Your task to perform on an android device: set an alarm Image 0: 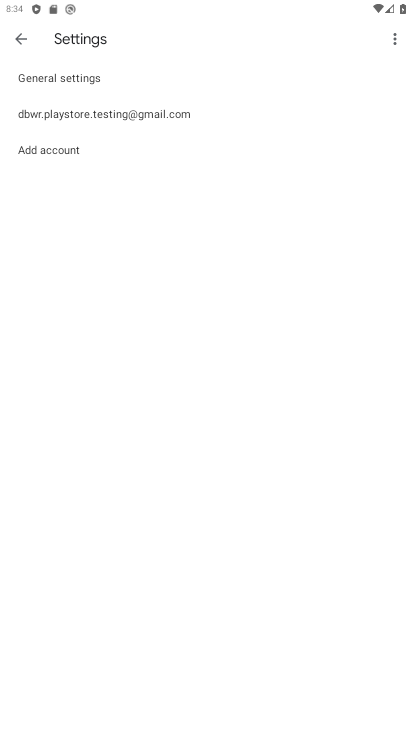
Step 0: press home button
Your task to perform on an android device: set an alarm Image 1: 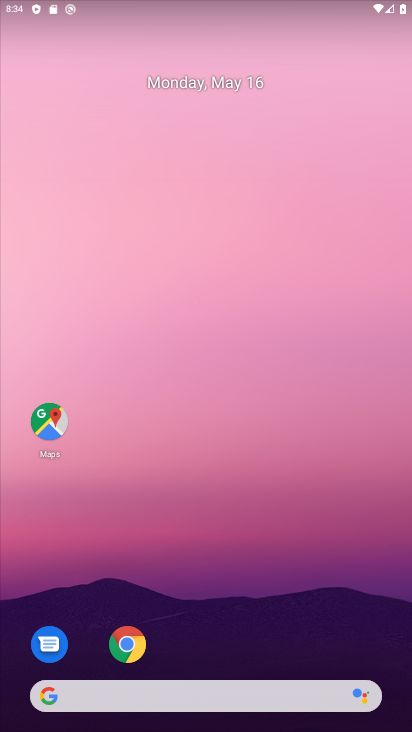
Step 1: drag from (238, 723) to (243, 16)
Your task to perform on an android device: set an alarm Image 2: 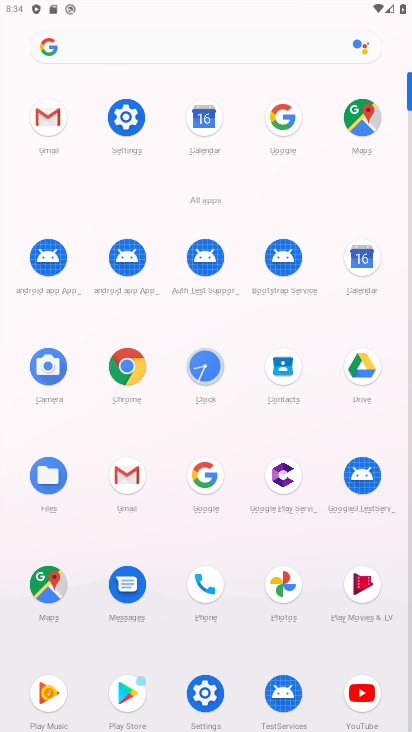
Step 2: click (196, 373)
Your task to perform on an android device: set an alarm Image 3: 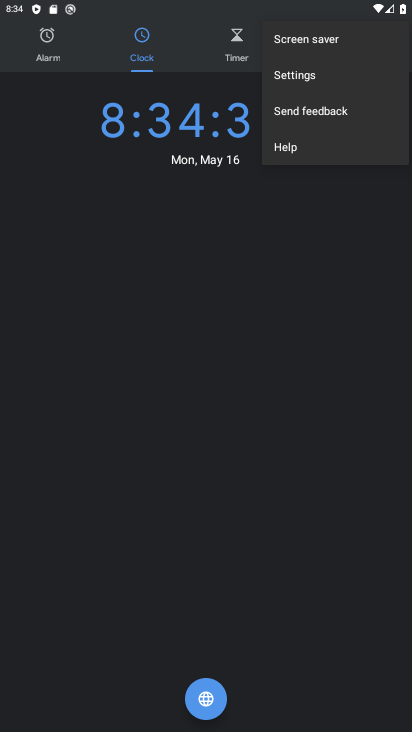
Step 3: click (58, 49)
Your task to perform on an android device: set an alarm Image 4: 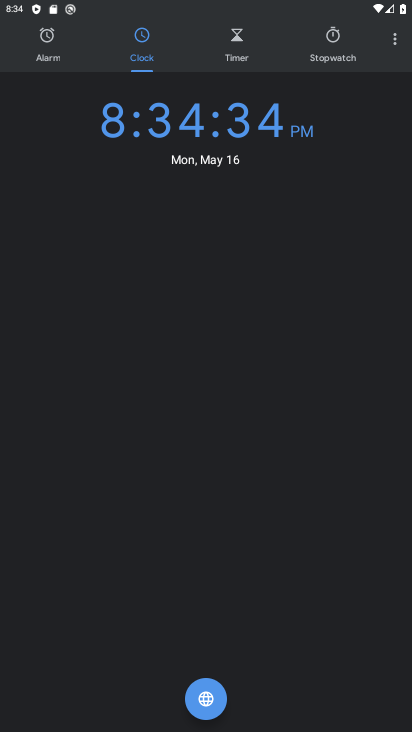
Step 4: click (51, 44)
Your task to perform on an android device: set an alarm Image 5: 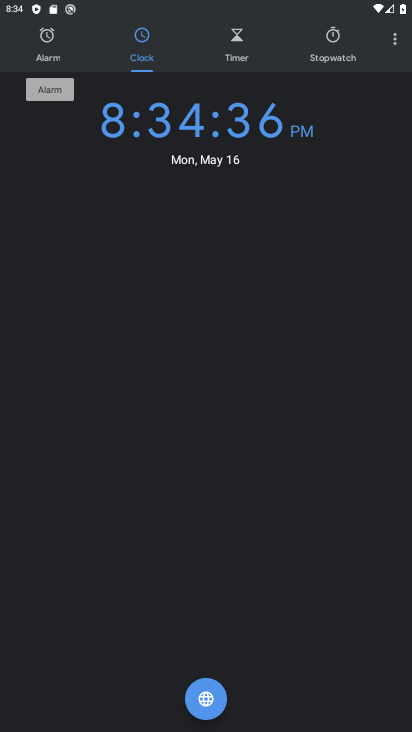
Step 5: click (52, 47)
Your task to perform on an android device: set an alarm Image 6: 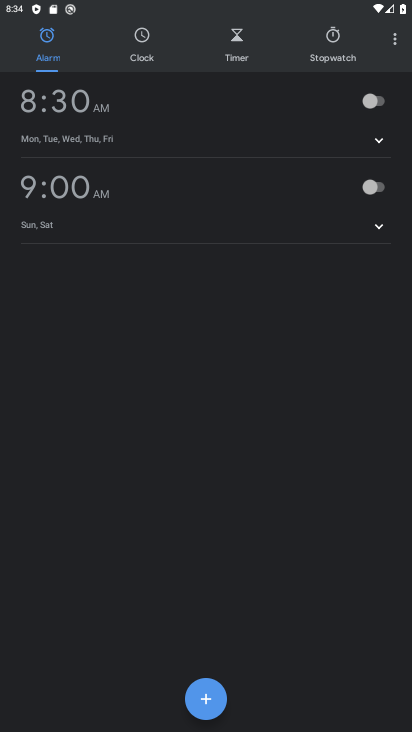
Step 6: task complete